Your task to perform on an android device: Go to CNN.com Image 0: 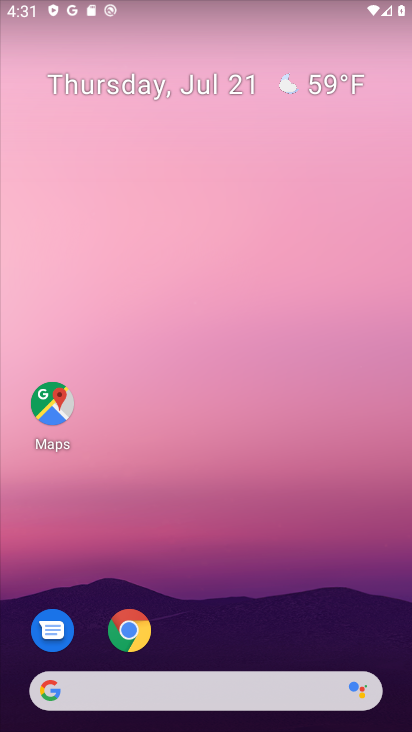
Step 0: drag from (223, 695) to (159, 285)
Your task to perform on an android device: Go to CNN.com Image 1: 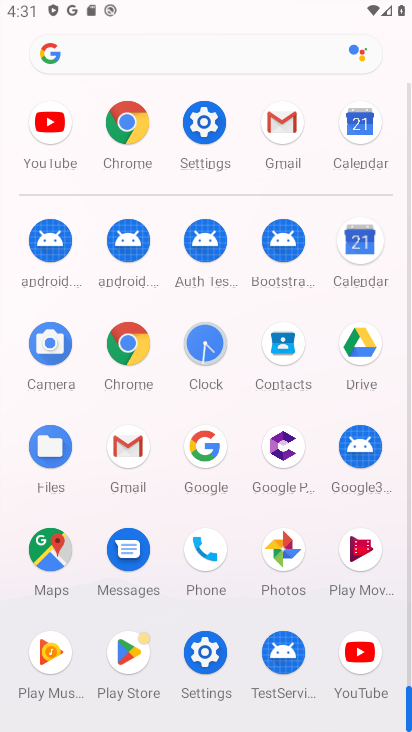
Step 1: click (136, 126)
Your task to perform on an android device: Go to CNN.com Image 2: 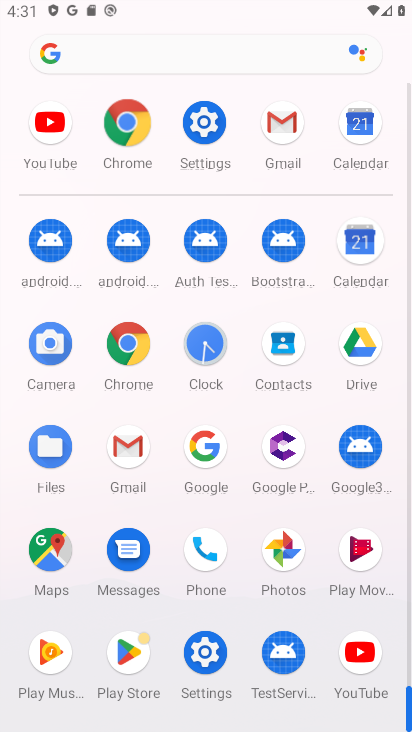
Step 2: click (135, 124)
Your task to perform on an android device: Go to CNN.com Image 3: 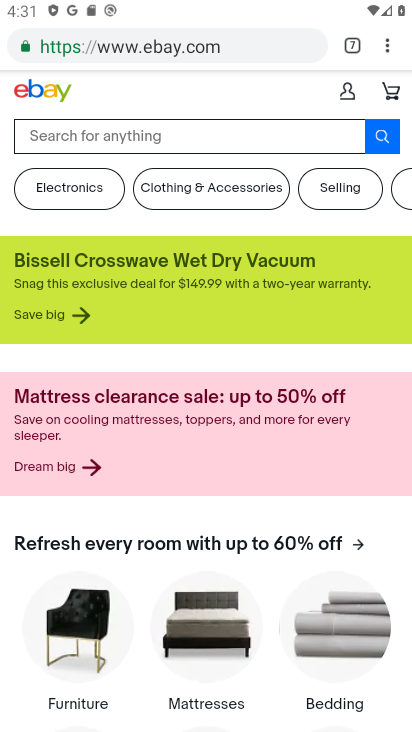
Step 3: drag from (380, 48) to (213, 89)
Your task to perform on an android device: Go to CNN.com Image 4: 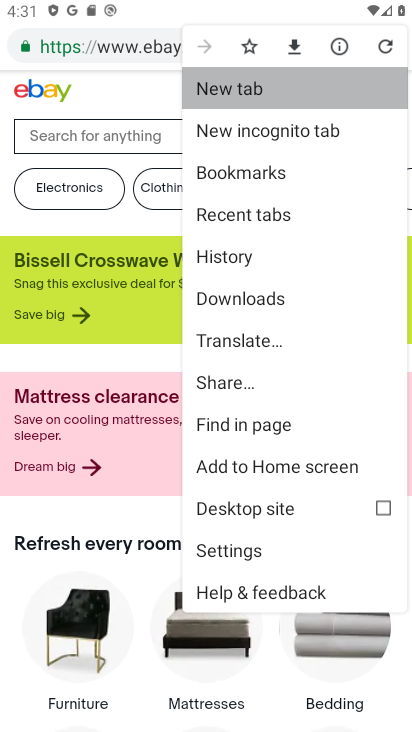
Step 4: click (214, 85)
Your task to perform on an android device: Go to CNN.com Image 5: 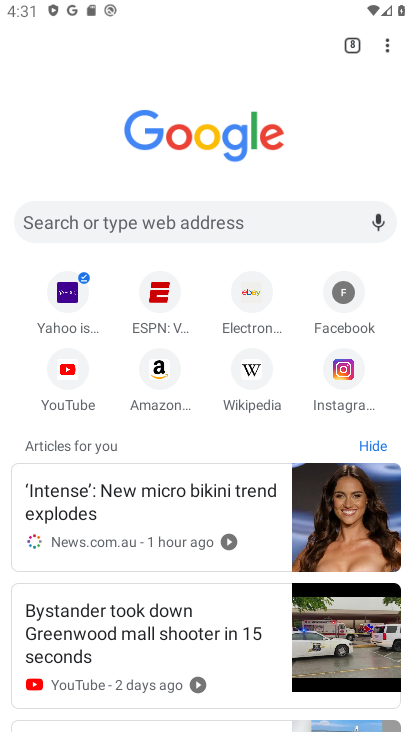
Step 5: click (82, 217)
Your task to perform on an android device: Go to CNN.com Image 6: 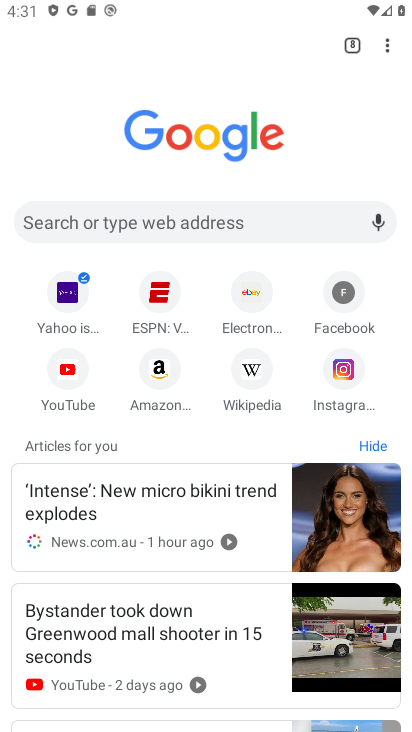
Step 6: click (91, 207)
Your task to perform on an android device: Go to CNN.com Image 7: 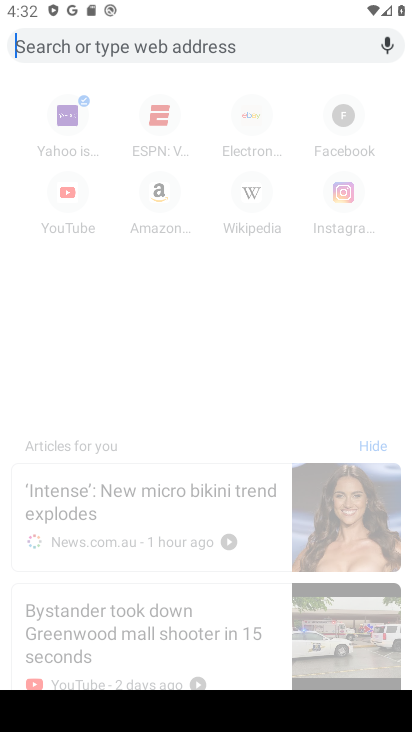
Step 7: type "CNN.com"
Your task to perform on an android device: Go to CNN.com Image 8: 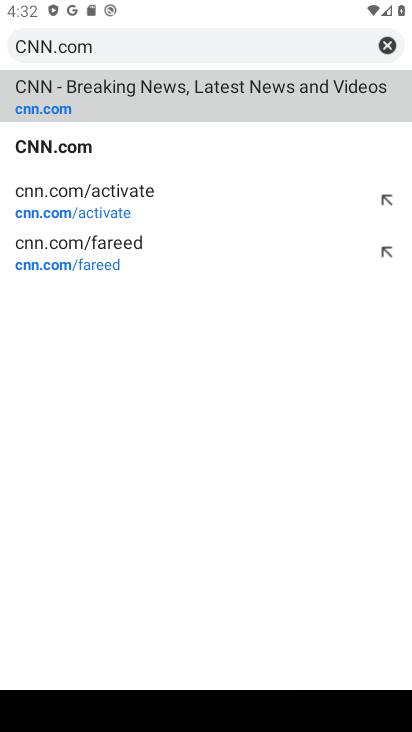
Step 8: click (173, 101)
Your task to perform on an android device: Go to CNN.com Image 9: 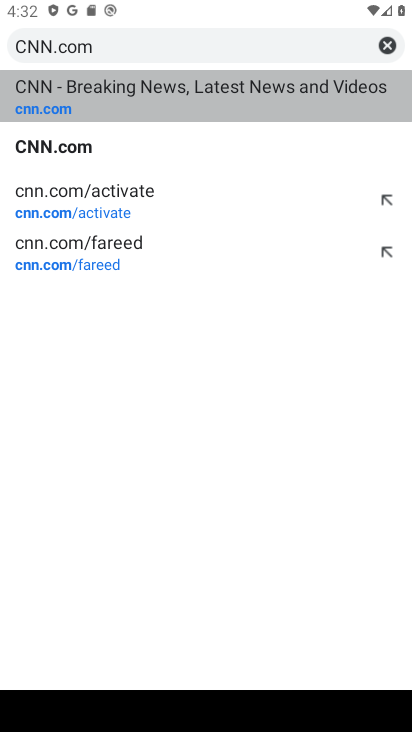
Step 9: click (179, 107)
Your task to perform on an android device: Go to CNN.com Image 10: 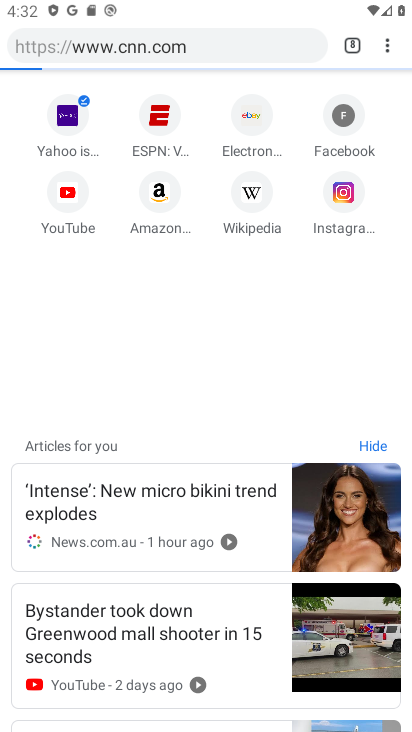
Step 10: click (180, 107)
Your task to perform on an android device: Go to CNN.com Image 11: 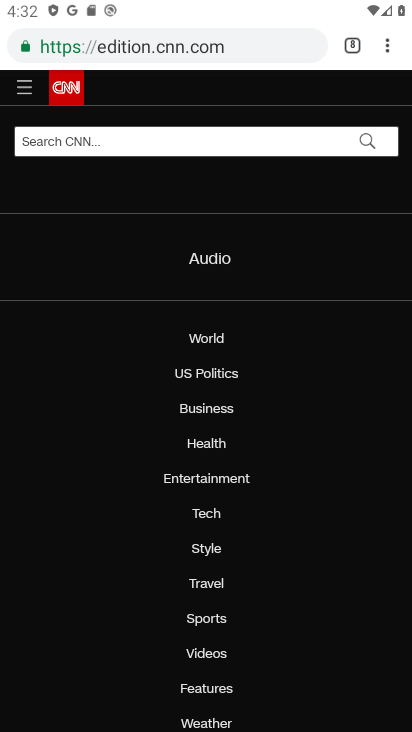
Step 11: task complete